Your task to perform on an android device: Is it going to rain tomorrow? Image 0: 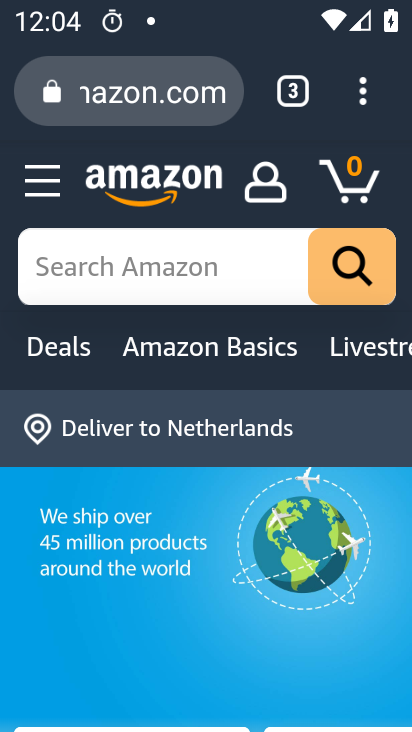
Step 0: press home button
Your task to perform on an android device: Is it going to rain tomorrow? Image 1: 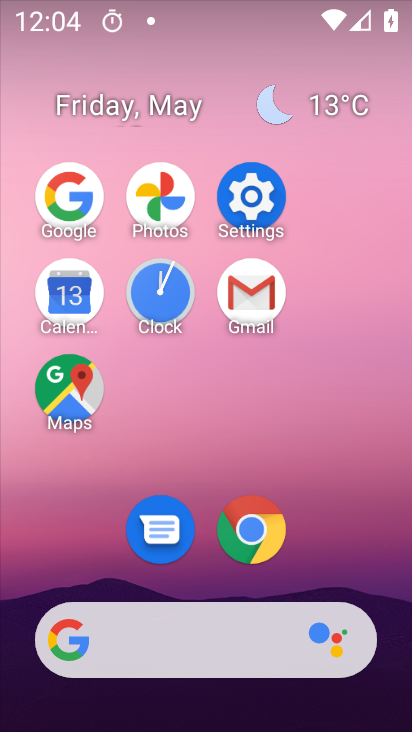
Step 1: click (67, 192)
Your task to perform on an android device: Is it going to rain tomorrow? Image 2: 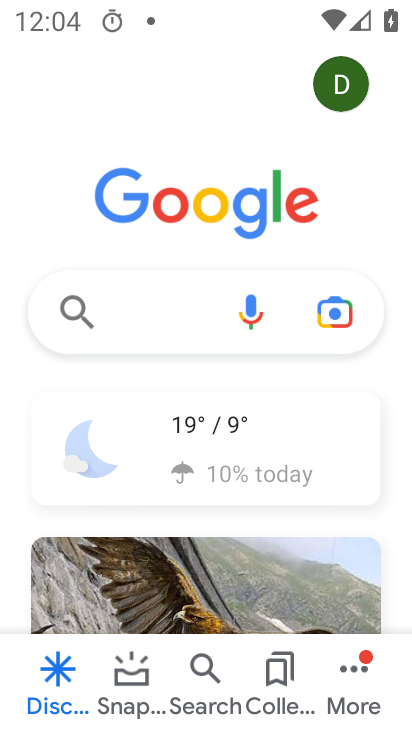
Step 2: click (187, 406)
Your task to perform on an android device: Is it going to rain tomorrow? Image 3: 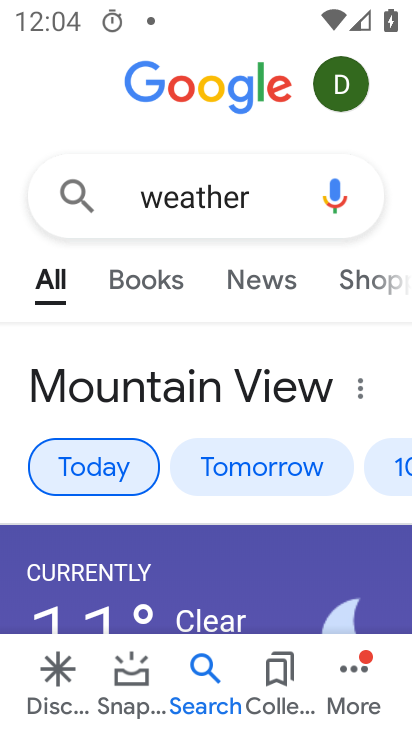
Step 3: click (250, 462)
Your task to perform on an android device: Is it going to rain tomorrow? Image 4: 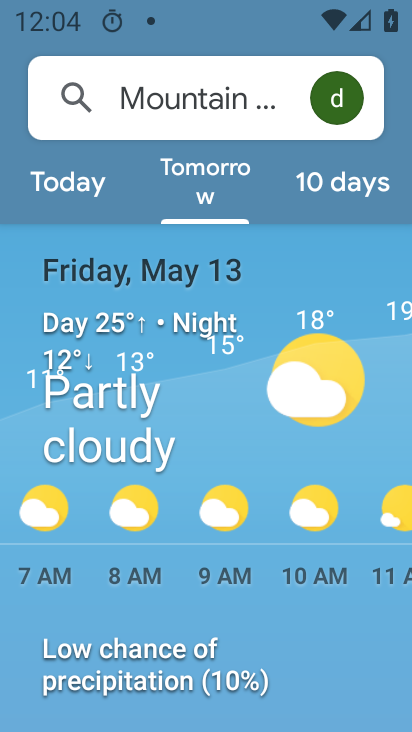
Step 4: task complete